Your task to perform on an android device: Open Amazon Image 0: 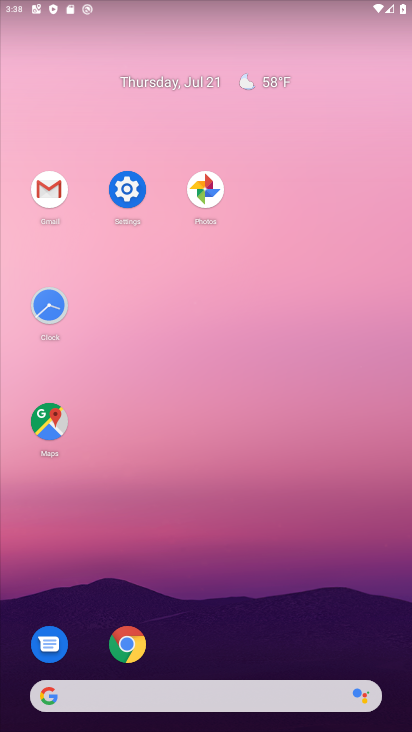
Step 0: click (124, 639)
Your task to perform on an android device: Open Amazon Image 1: 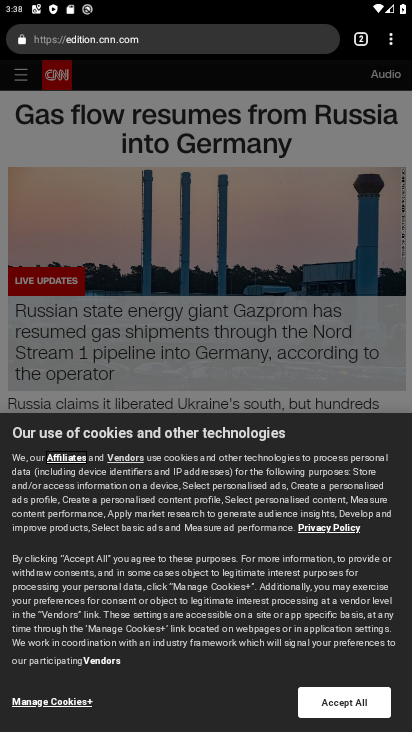
Step 1: click (363, 42)
Your task to perform on an android device: Open Amazon Image 2: 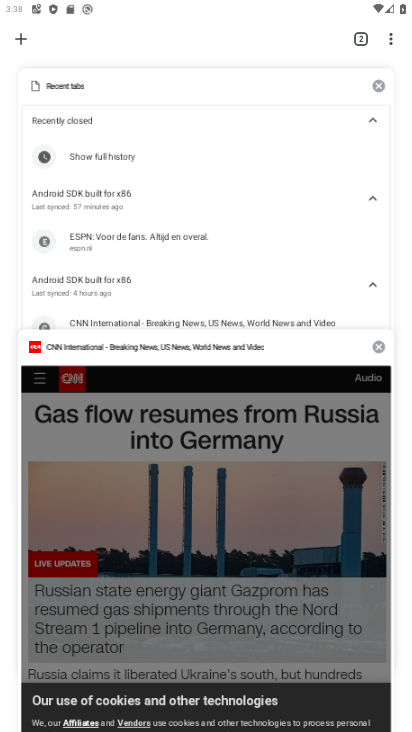
Step 2: click (19, 38)
Your task to perform on an android device: Open Amazon Image 3: 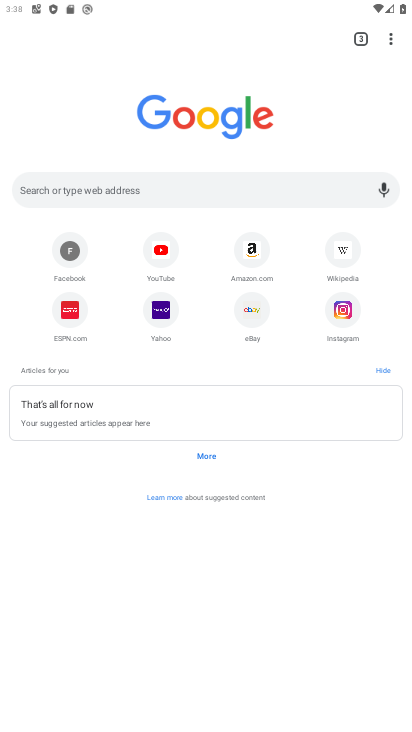
Step 3: click (263, 253)
Your task to perform on an android device: Open Amazon Image 4: 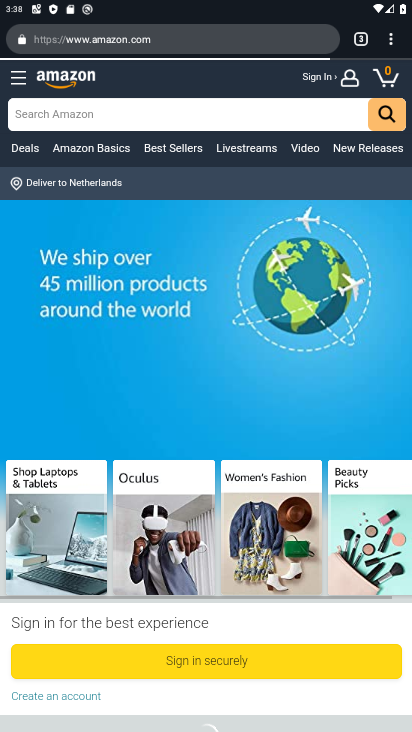
Step 4: task complete